Your task to perform on an android device: What's on my calendar tomorrow? Image 0: 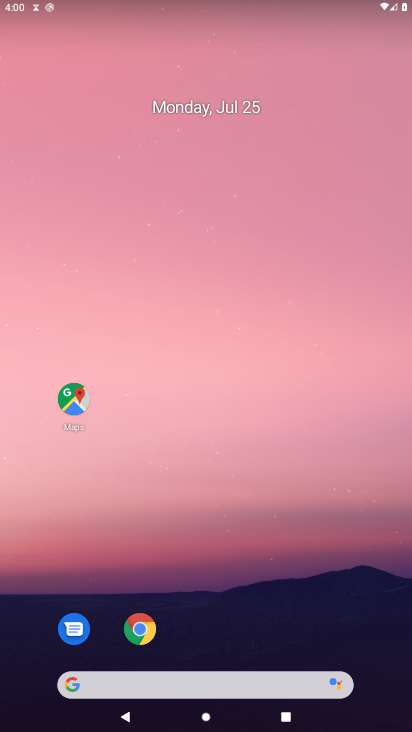
Step 0: drag from (71, 562) to (207, 87)
Your task to perform on an android device: What's on my calendar tomorrow? Image 1: 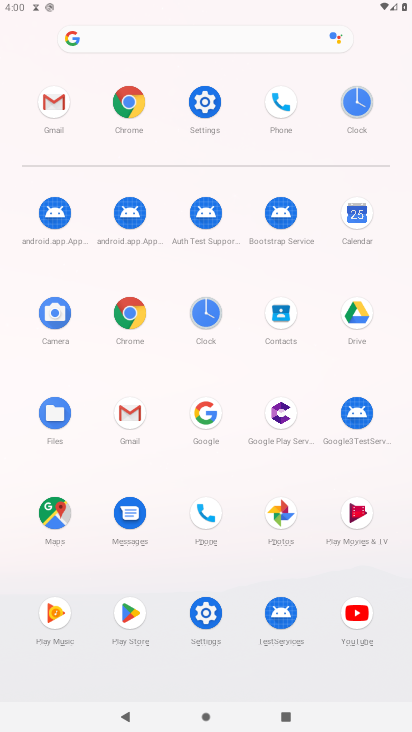
Step 1: click (355, 218)
Your task to perform on an android device: What's on my calendar tomorrow? Image 2: 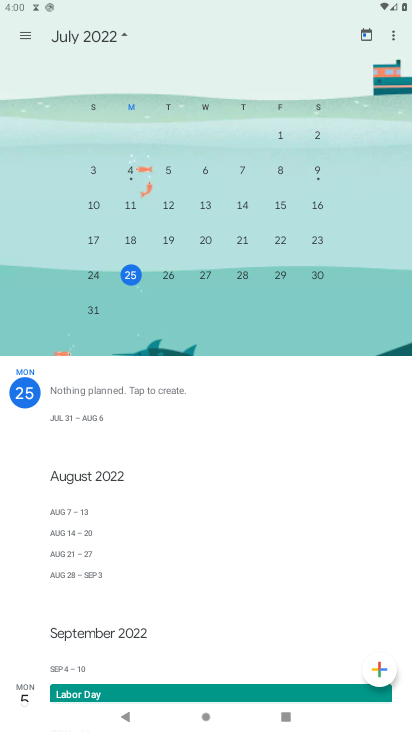
Step 2: task complete